Your task to perform on an android device: Open my contact list Image 0: 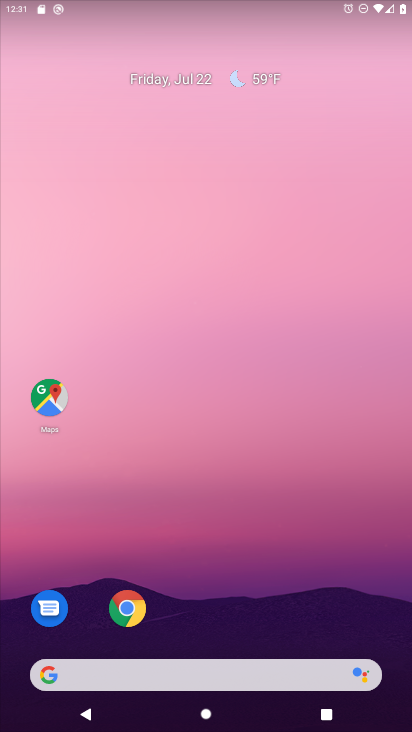
Step 0: drag from (365, 624) to (189, 16)
Your task to perform on an android device: Open my contact list Image 1: 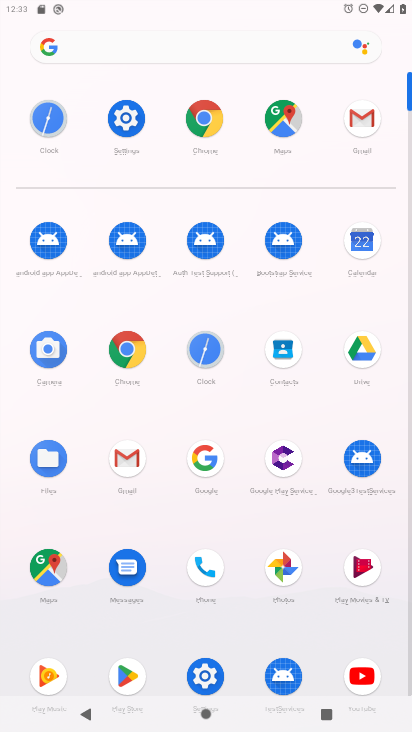
Step 1: click (282, 364)
Your task to perform on an android device: Open my contact list Image 2: 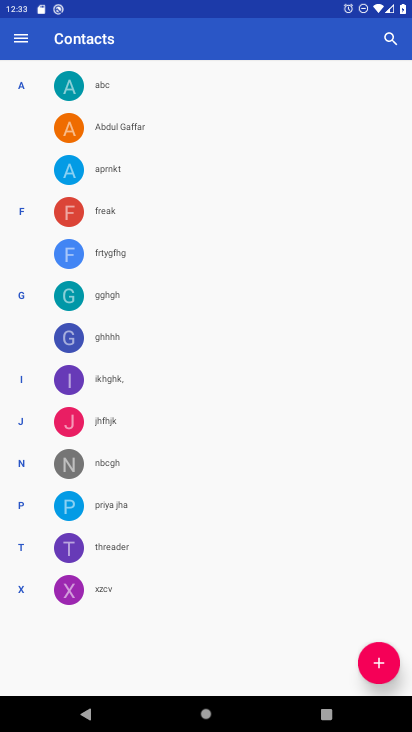
Step 2: task complete